Your task to perform on an android device: Open settings Image 0: 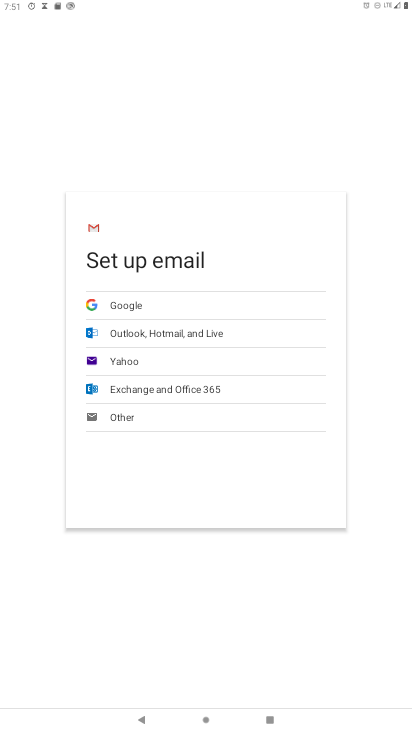
Step 0: press home button
Your task to perform on an android device: Open settings Image 1: 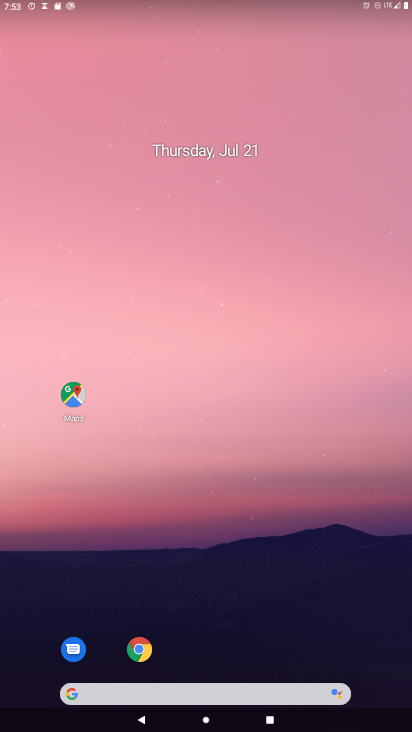
Step 1: drag from (363, 596) to (169, 16)
Your task to perform on an android device: Open settings Image 2: 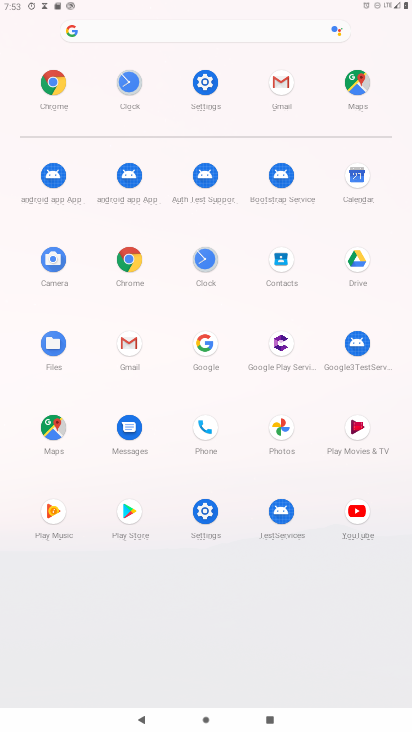
Step 2: click (196, 508)
Your task to perform on an android device: Open settings Image 3: 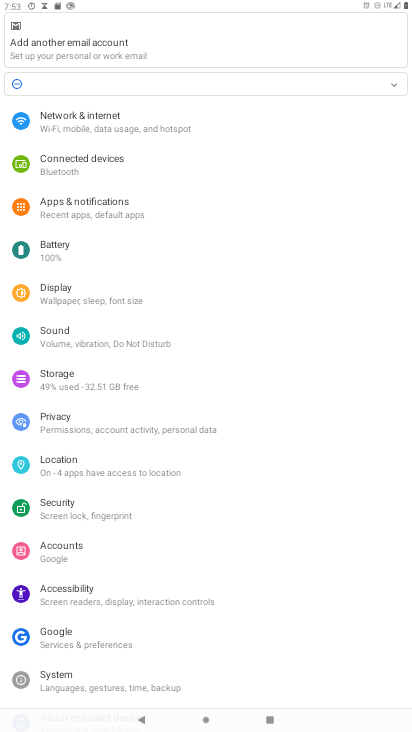
Step 3: task complete